Your task to perform on an android device: Search for pizza restaurants on Maps Image 0: 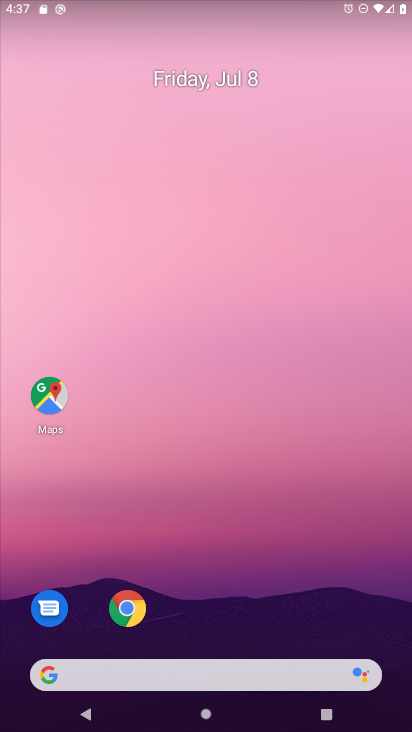
Step 0: drag from (319, 690) to (381, 2)
Your task to perform on an android device: Search for pizza restaurants on Maps Image 1: 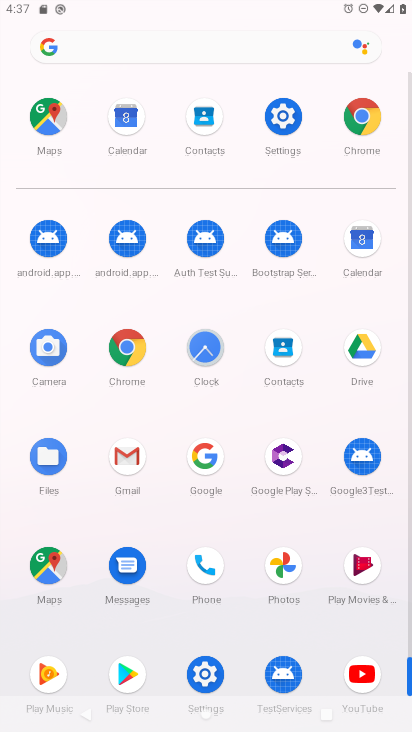
Step 1: click (42, 565)
Your task to perform on an android device: Search for pizza restaurants on Maps Image 2: 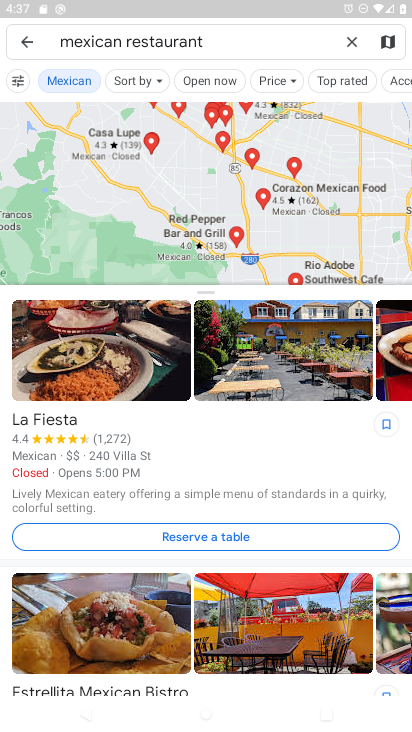
Step 2: press back button
Your task to perform on an android device: Search for pizza restaurants on Maps Image 3: 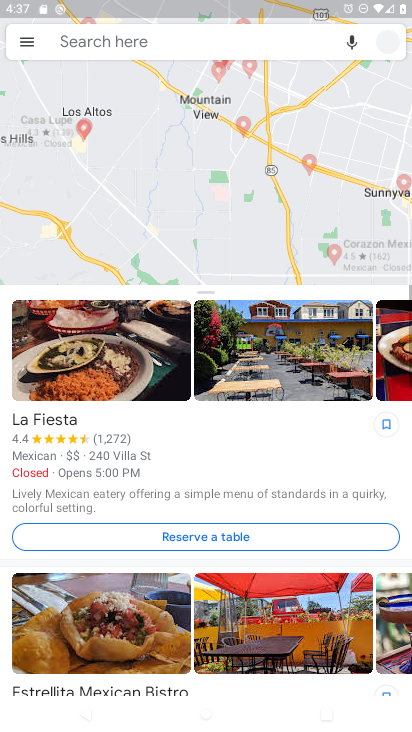
Step 3: click (121, 46)
Your task to perform on an android device: Search for pizza restaurants on Maps Image 4: 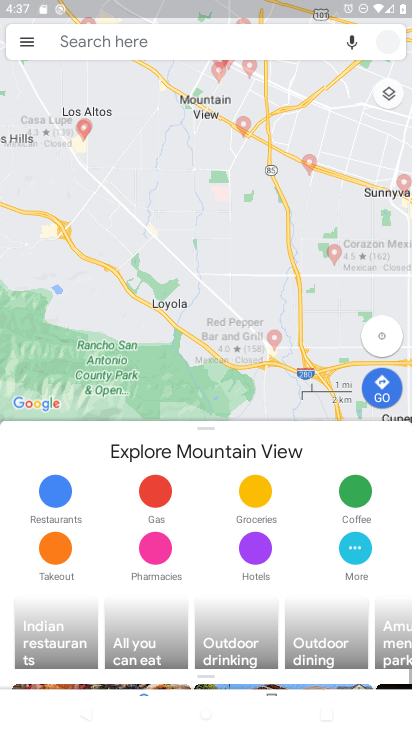
Step 4: click (121, 46)
Your task to perform on an android device: Search for pizza restaurants on Maps Image 5: 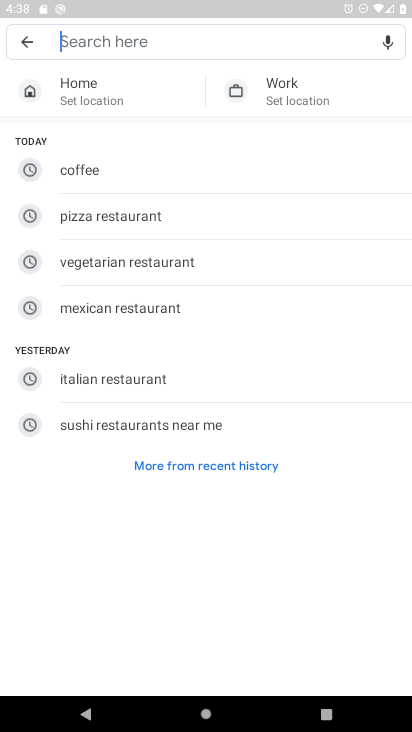
Step 5: type "pizza restaurant"
Your task to perform on an android device: Search for pizza restaurants on Maps Image 6: 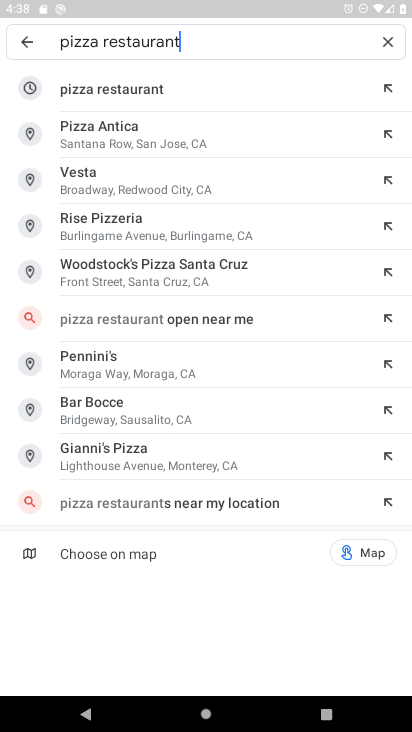
Step 6: click (84, 96)
Your task to perform on an android device: Search for pizza restaurants on Maps Image 7: 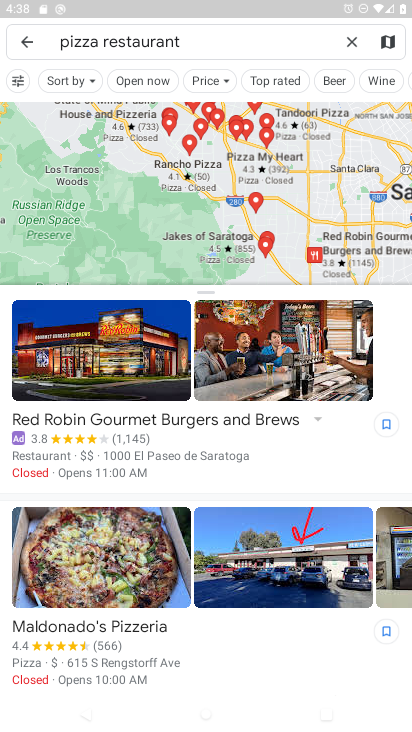
Step 7: task complete